Your task to perform on an android device: open app "WhatsApp Messenger" (install if not already installed) and enter user name: "cartons@outlook.com" and password: "approximated" Image 0: 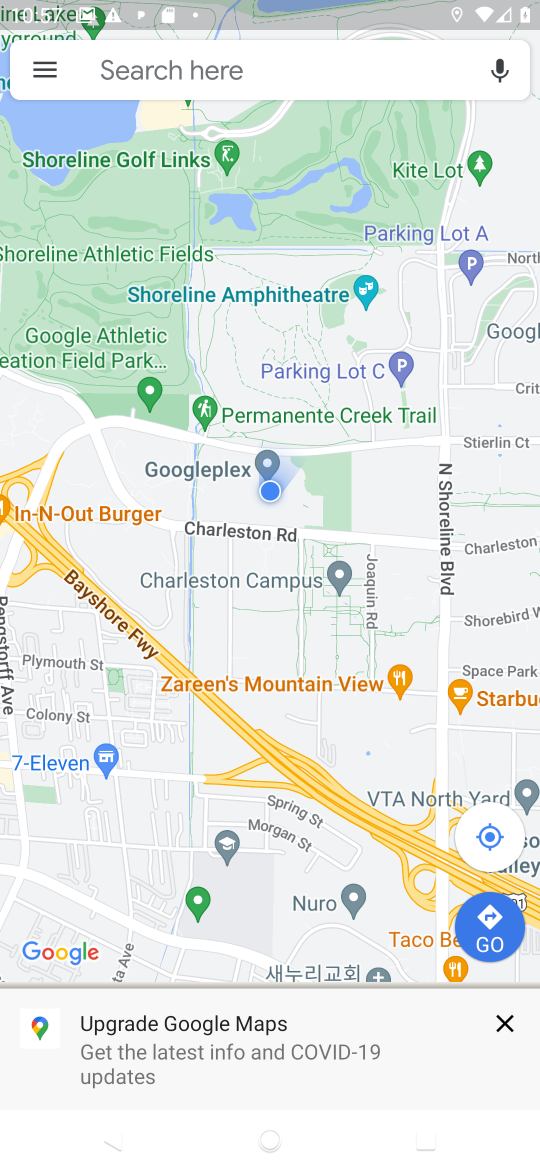
Step 0: press back button
Your task to perform on an android device: open app "WhatsApp Messenger" (install if not already installed) and enter user name: "cartons@outlook.com" and password: "approximated" Image 1: 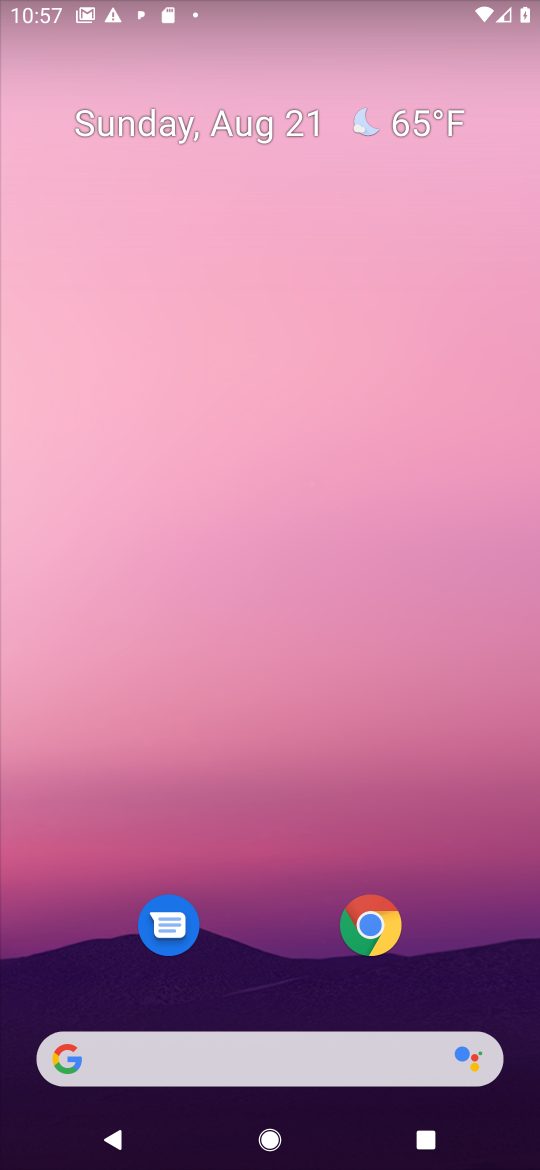
Step 1: drag from (300, 992) to (422, 94)
Your task to perform on an android device: open app "WhatsApp Messenger" (install if not already installed) and enter user name: "cartons@outlook.com" and password: "approximated" Image 2: 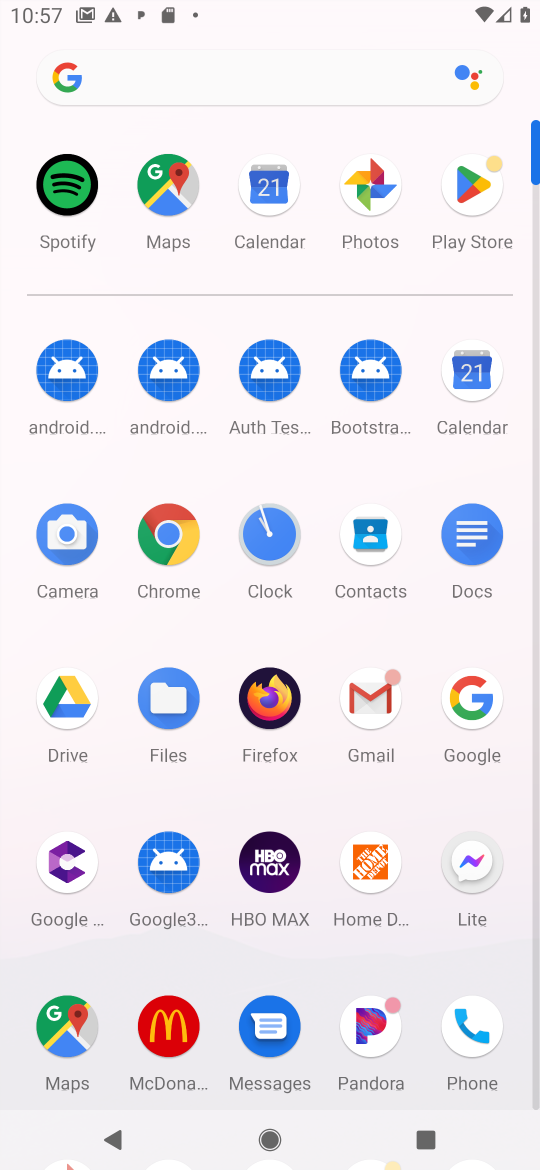
Step 2: click (477, 186)
Your task to perform on an android device: open app "WhatsApp Messenger" (install if not already installed) and enter user name: "cartons@outlook.com" and password: "approximated" Image 3: 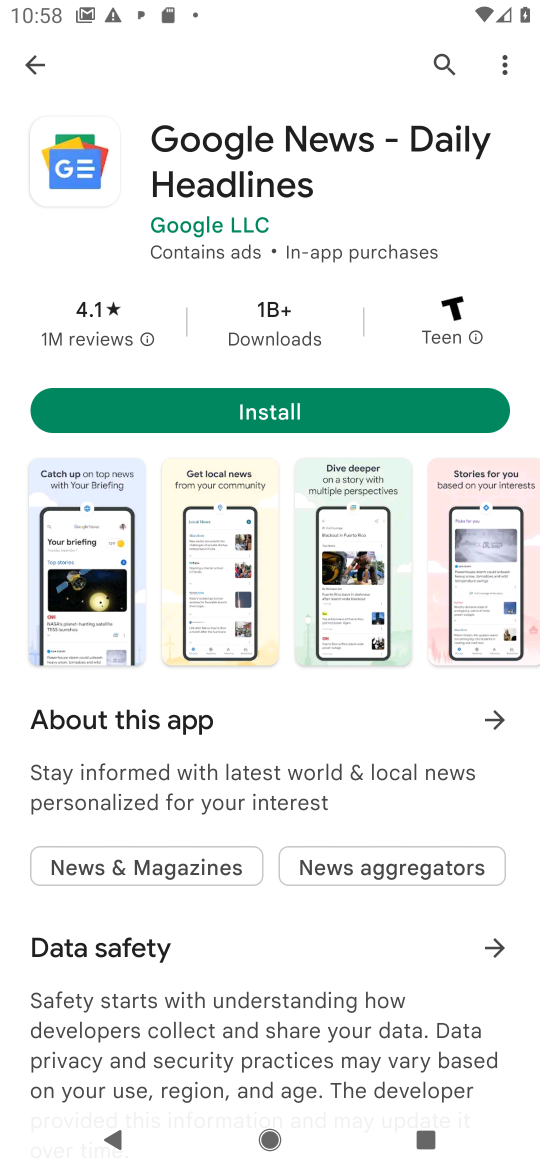
Step 3: click (453, 56)
Your task to perform on an android device: open app "WhatsApp Messenger" (install if not already installed) and enter user name: "cartons@outlook.com" and password: "approximated" Image 4: 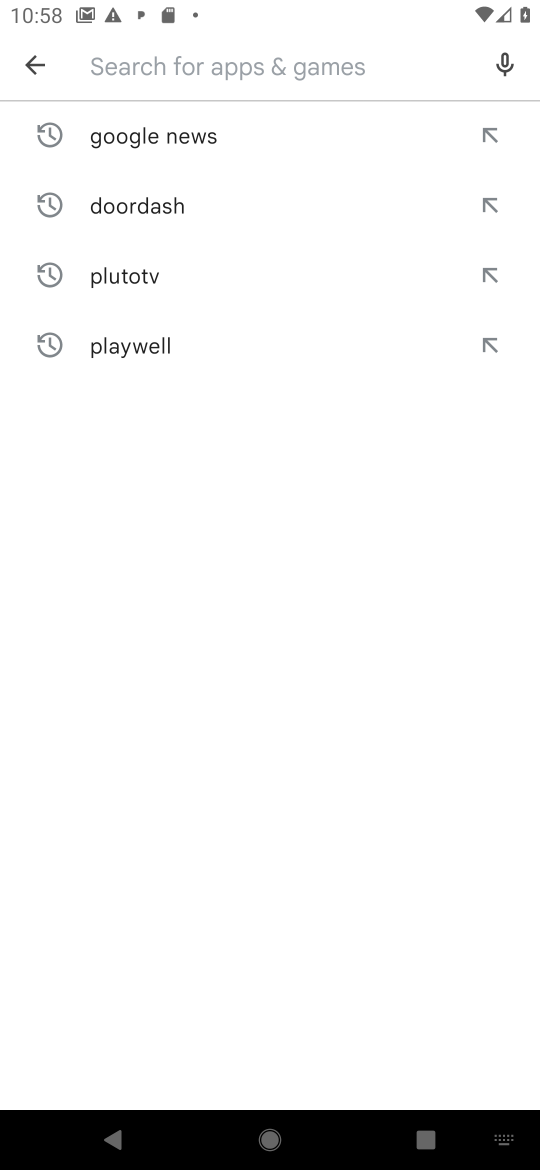
Step 4: click (207, 48)
Your task to perform on an android device: open app "WhatsApp Messenger" (install if not already installed) and enter user name: "cartons@outlook.com" and password: "approximated" Image 5: 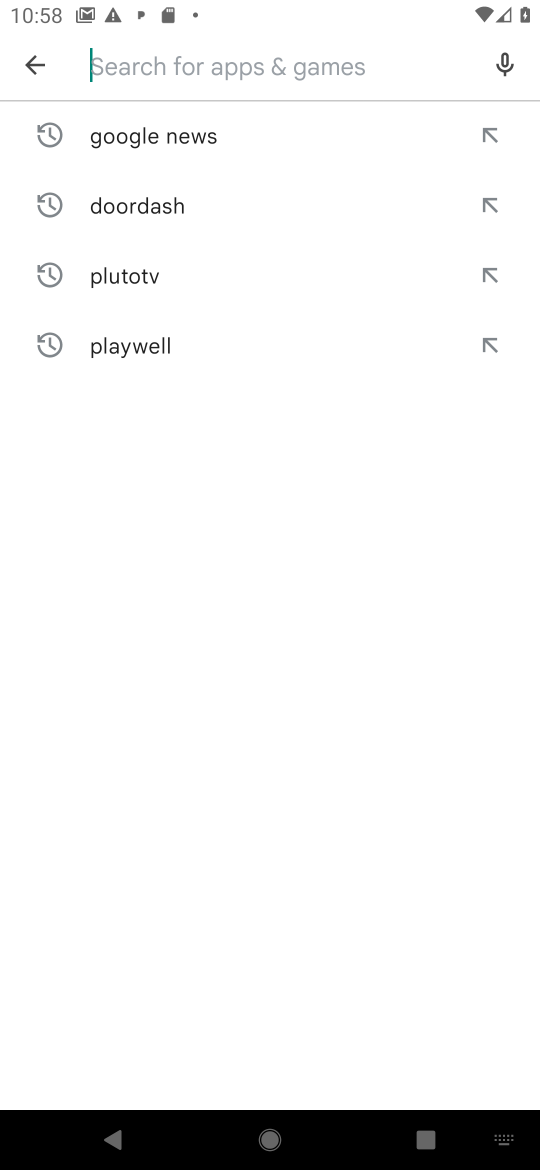
Step 5: type "WhatsApp Messenger"
Your task to perform on an android device: open app "WhatsApp Messenger" (install if not already installed) and enter user name: "cartons@outlook.com" and password: "approximated" Image 6: 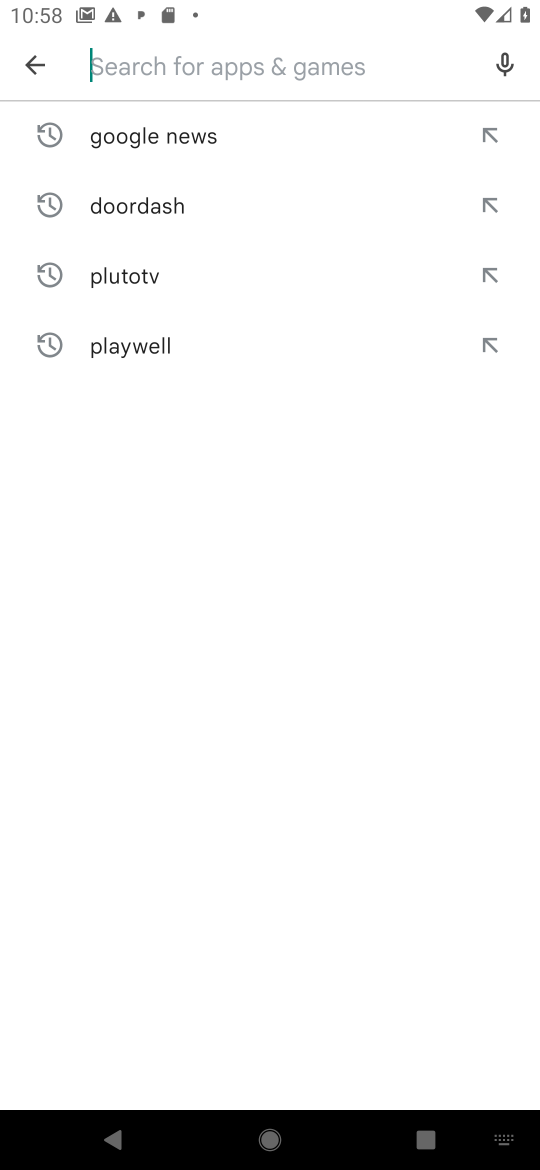
Step 6: click (420, 572)
Your task to perform on an android device: open app "WhatsApp Messenger" (install if not already installed) and enter user name: "cartons@outlook.com" and password: "approximated" Image 7: 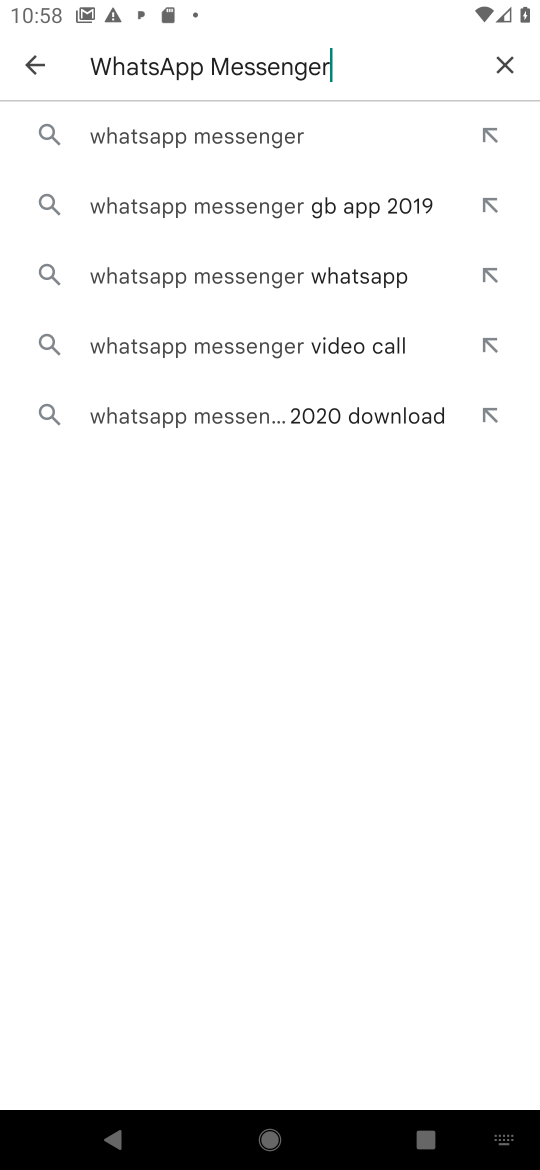
Step 7: click (249, 152)
Your task to perform on an android device: open app "WhatsApp Messenger" (install if not already installed) and enter user name: "cartons@outlook.com" and password: "approximated" Image 8: 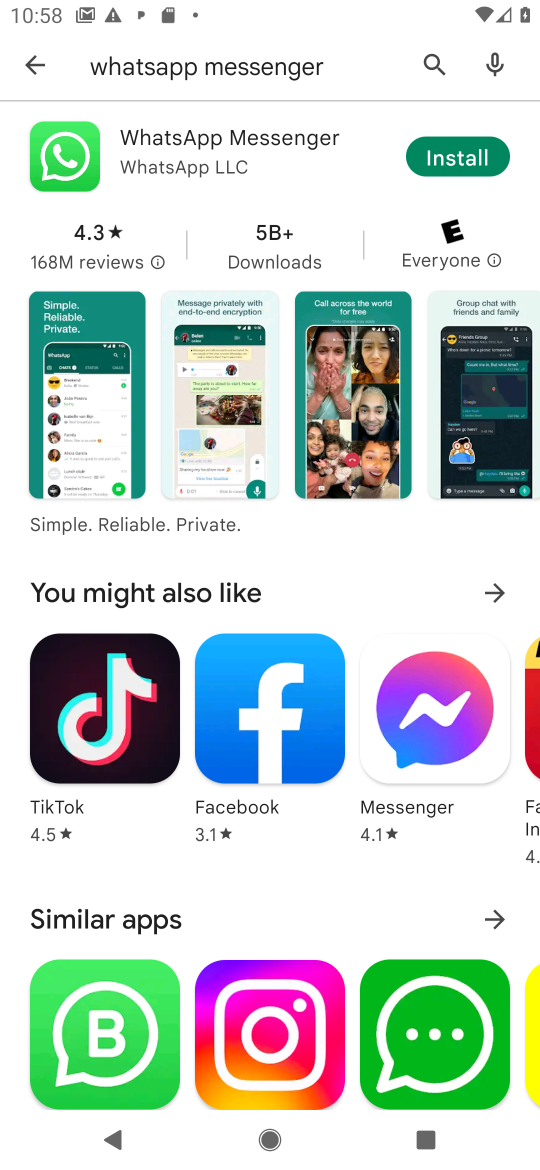
Step 8: click (460, 153)
Your task to perform on an android device: open app "WhatsApp Messenger" (install if not already installed) and enter user name: "cartons@outlook.com" and password: "approximated" Image 9: 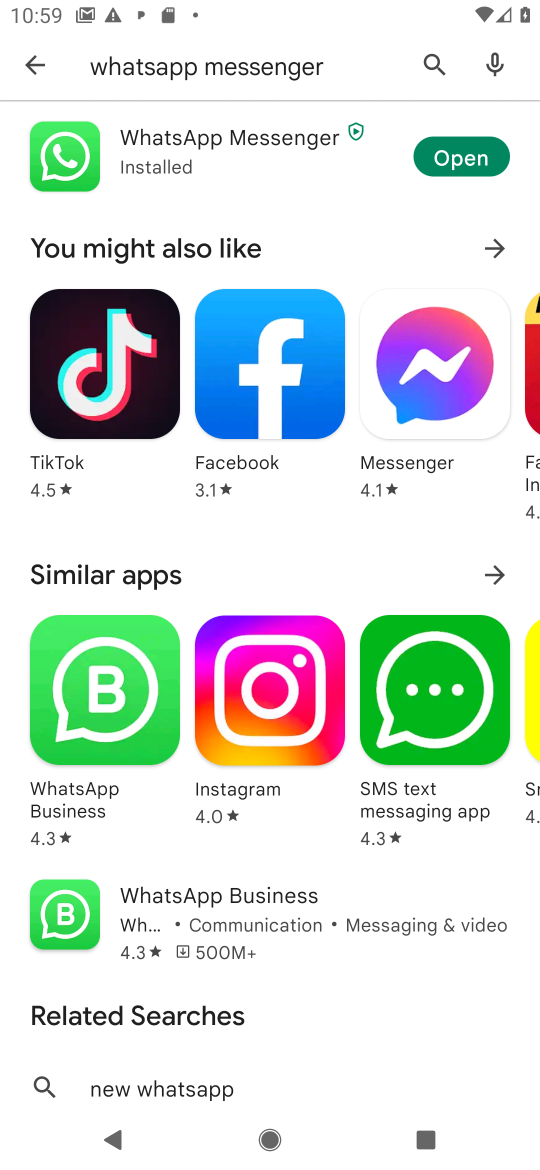
Step 9: click (439, 160)
Your task to perform on an android device: open app "WhatsApp Messenger" (install if not already installed) and enter user name: "cartons@outlook.com" and password: "approximated" Image 10: 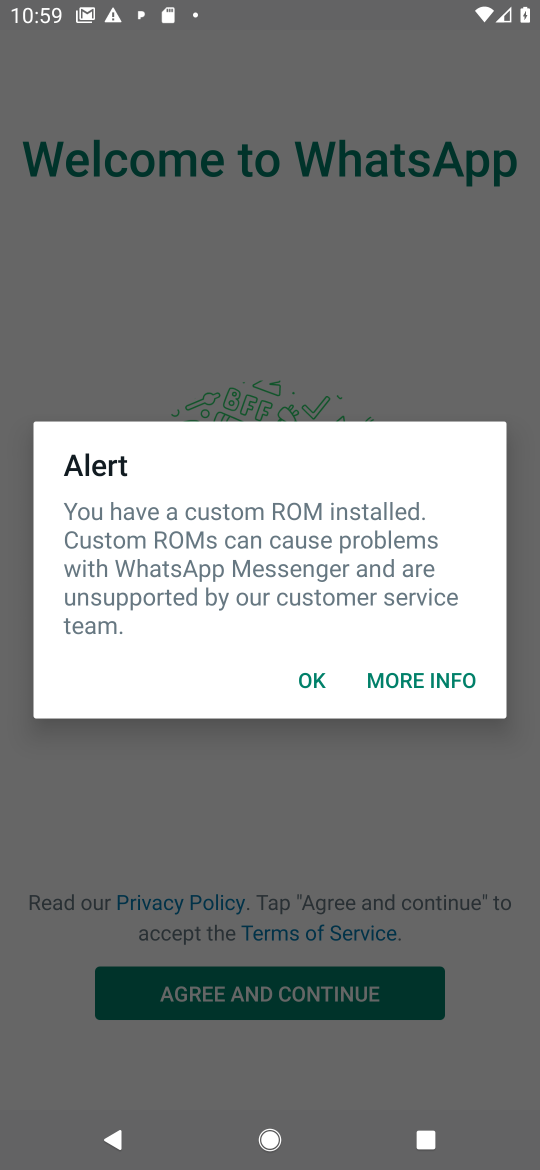
Step 10: click (248, 999)
Your task to perform on an android device: open app "WhatsApp Messenger" (install if not already installed) and enter user name: "cartons@outlook.com" and password: "approximated" Image 11: 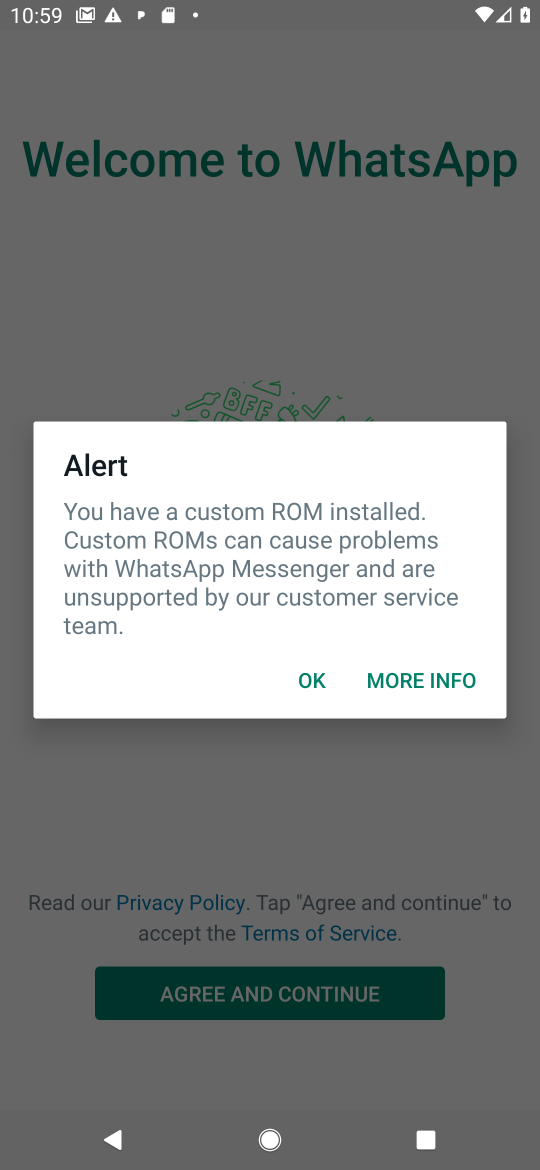
Step 11: click (315, 674)
Your task to perform on an android device: open app "WhatsApp Messenger" (install if not already installed) and enter user name: "cartons@outlook.com" and password: "approximated" Image 12: 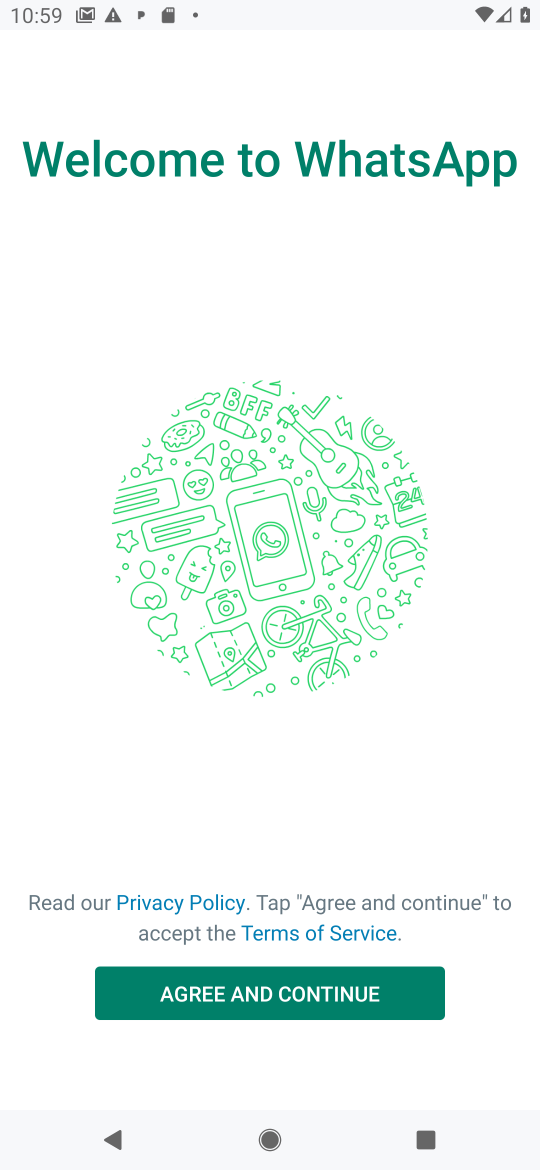
Step 12: click (261, 996)
Your task to perform on an android device: open app "WhatsApp Messenger" (install if not already installed) and enter user name: "cartons@outlook.com" and password: "approximated" Image 13: 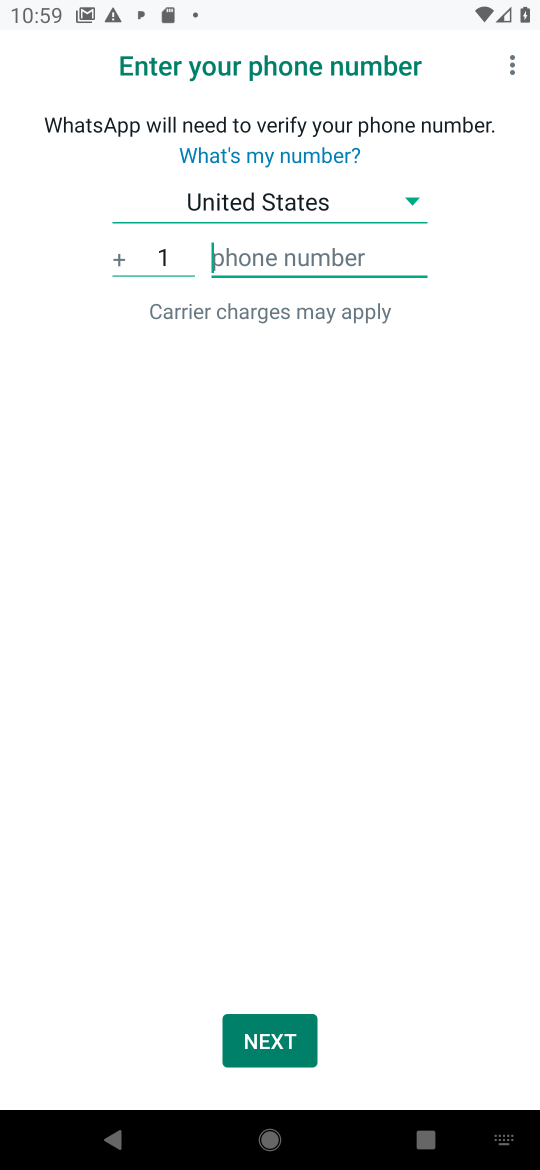
Step 13: task complete